Your task to perform on an android device: Search for Mexican restaurants on Maps Image 0: 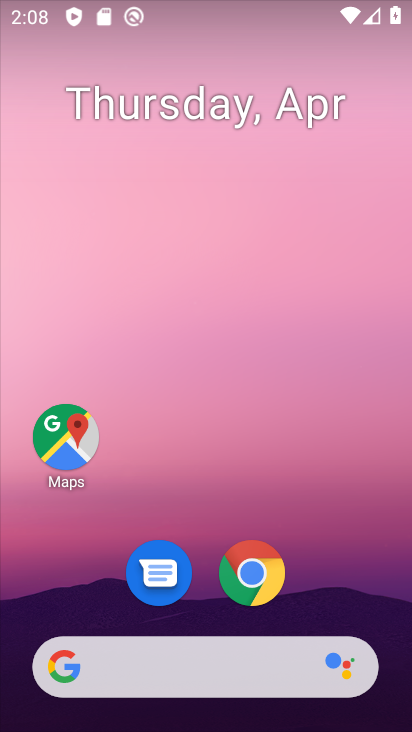
Step 0: drag from (345, 597) to (277, 37)
Your task to perform on an android device: Search for Mexican restaurants on Maps Image 1: 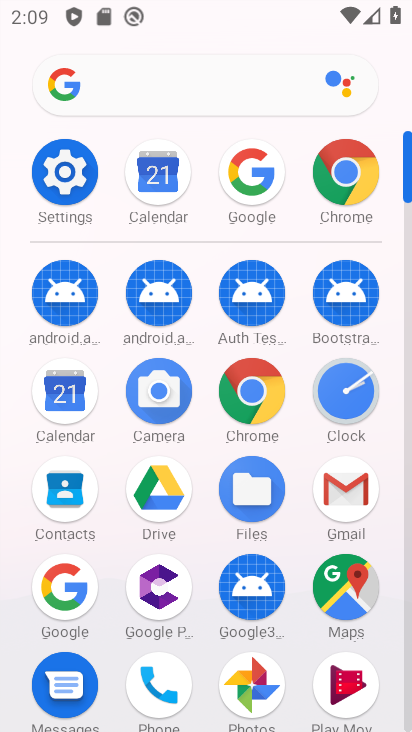
Step 1: click (363, 603)
Your task to perform on an android device: Search for Mexican restaurants on Maps Image 2: 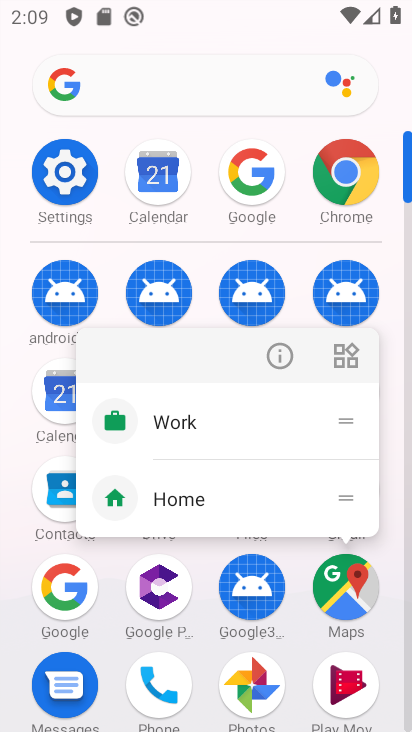
Step 2: click (332, 589)
Your task to perform on an android device: Search for Mexican restaurants on Maps Image 3: 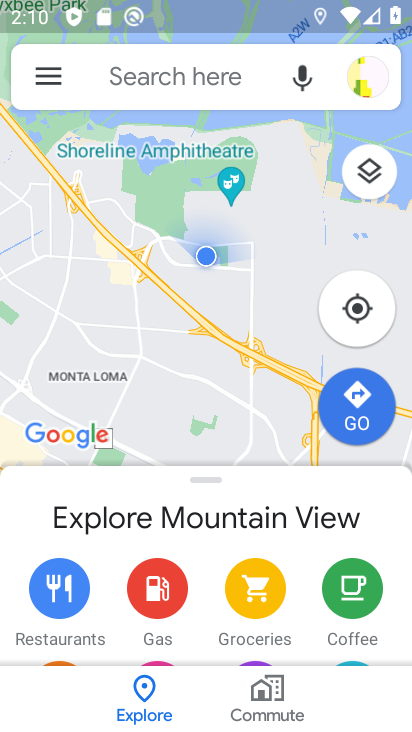
Step 3: click (201, 78)
Your task to perform on an android device: Search for Mexican restaurants on Maps Image 4: 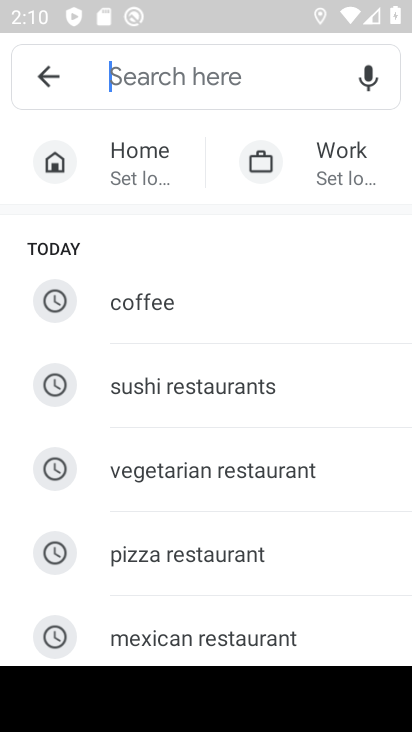
Step 4: click (220, 633)
Your task to perform on an android device: Search for Mexican restaurants on Maps Image 5: 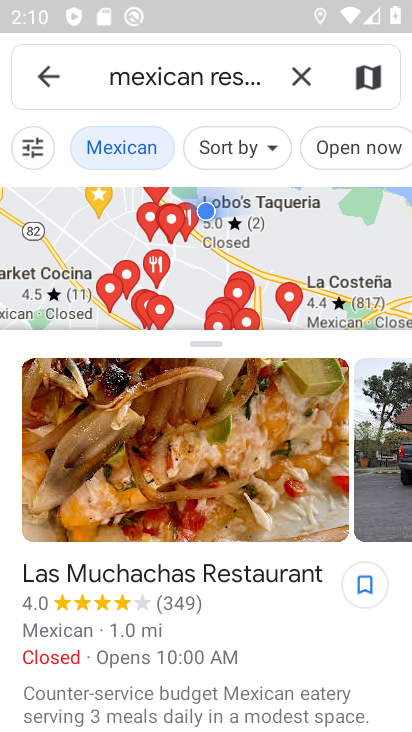
Step 5: task complete